Your task to perform on an android device: turn off location history Image 0: 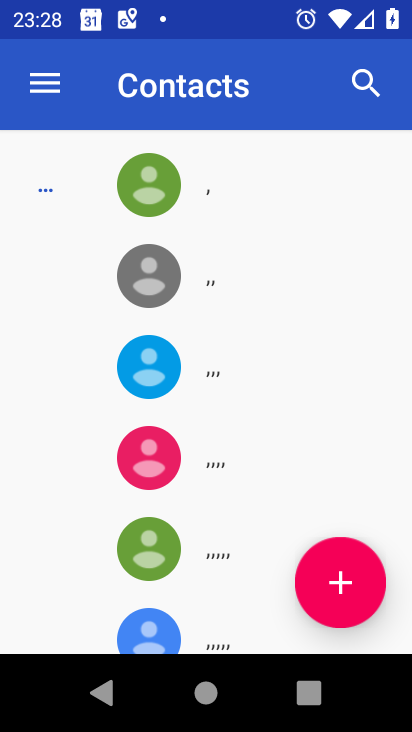
Step 0: press home button
Your task to perform on an android device: turn off location history Image 1: 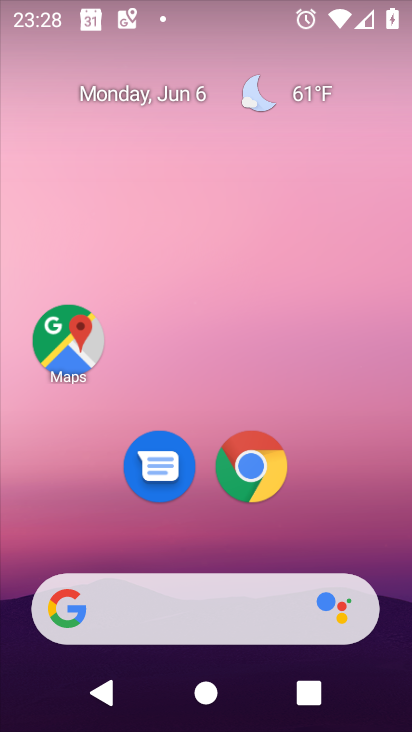
Step 1: click (51, 360)
Your task to perform on an android device: turn off location history Image 2: 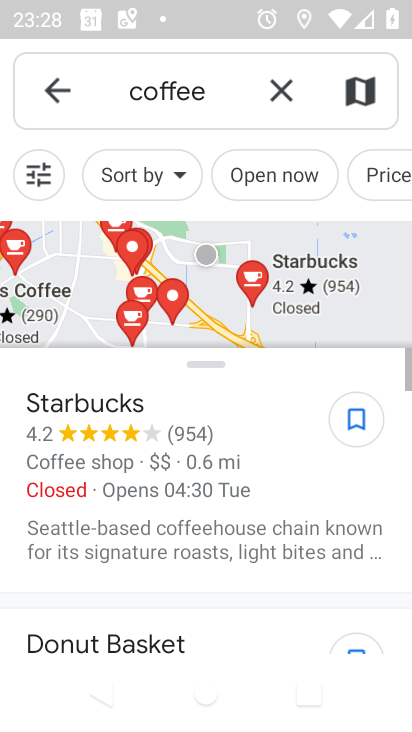
Step 2: click (54, 100)
Your task to perform on an android device: turn off location history Image 3: 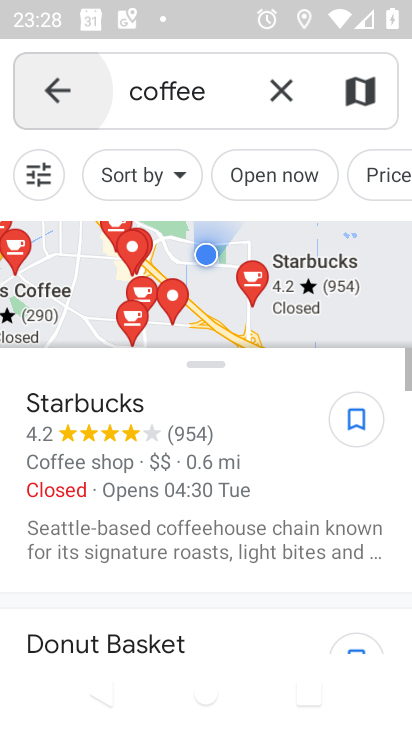
Step 3: click (54, 100)
Your task to perform on an android device: turn off location history Image 4: 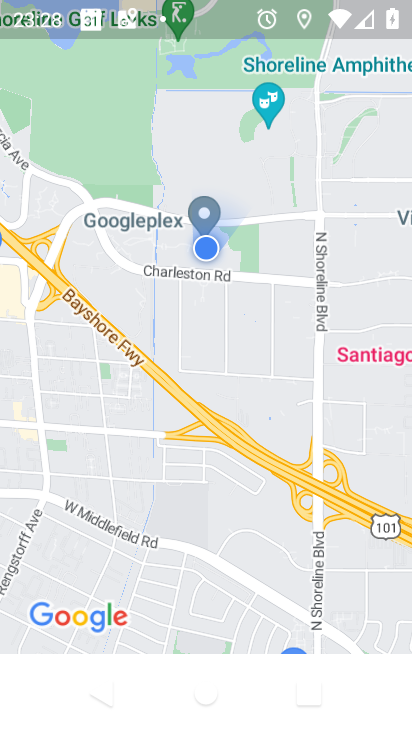
Step 4: drag from (305, 271) to (253, 652)
Your task to perform on an android device: turn off location history Image 5: 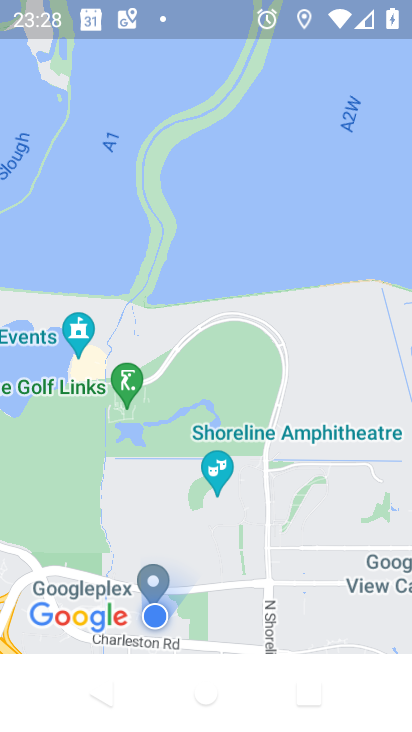
Step 5: press back button
Your task to perform on an android device: turn off location history Image 6: 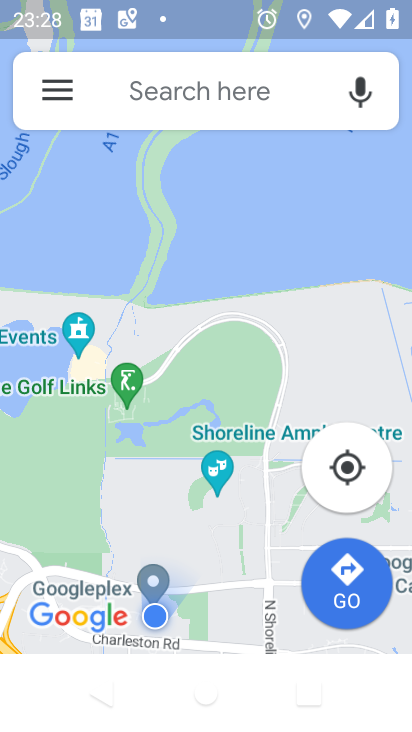
Step 6: click (53, 100)
Your task to perform on an android device: turn off location history Image 7: 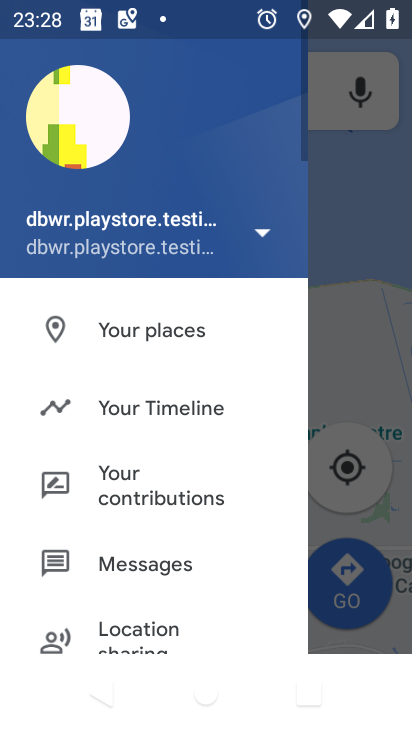
Step 7: click (119, 393)
Your task to perform on an android device: turn off location history Image 8: 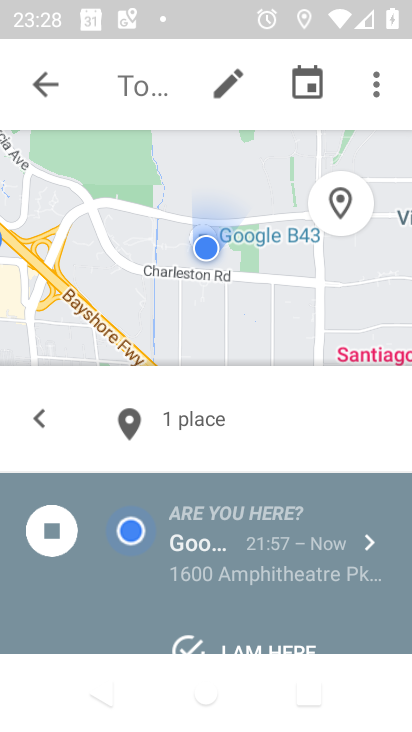
Step 8: click (379, 82)
Your task to perform on an android device: turn off location history Image 9: 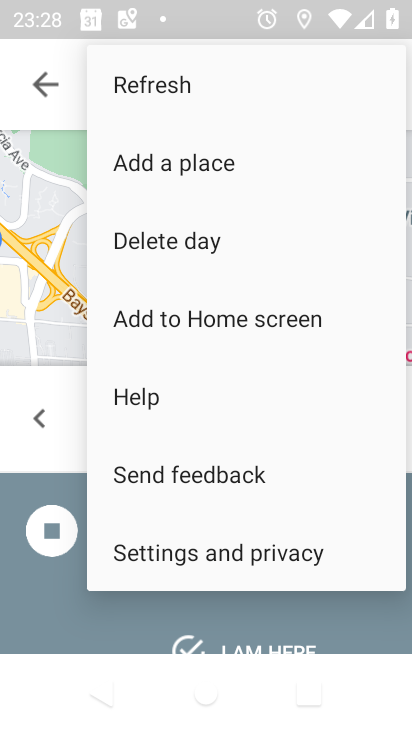
Step 9: click (198, 553)
Your task to perform on an android device: turn off location history Image 10: 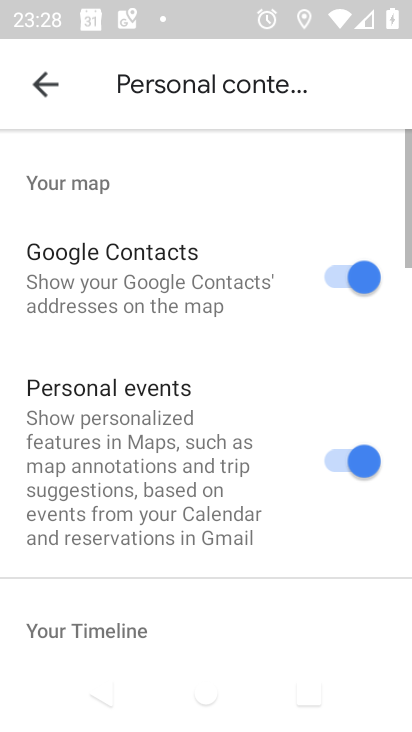
Step 10: drag from (185, 498) to (183, 159)
Your task to perform on an android device: turn off location history Image 11: 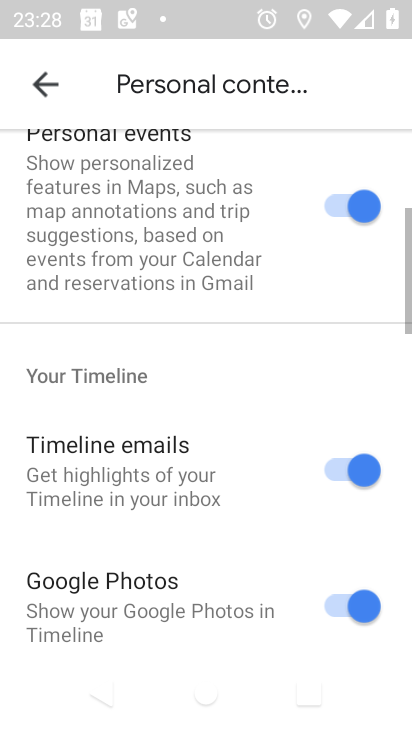
Step 11: drag from (183, 505) to (174, 406)
Your task to perform on an android device: turn off location history Image 12: 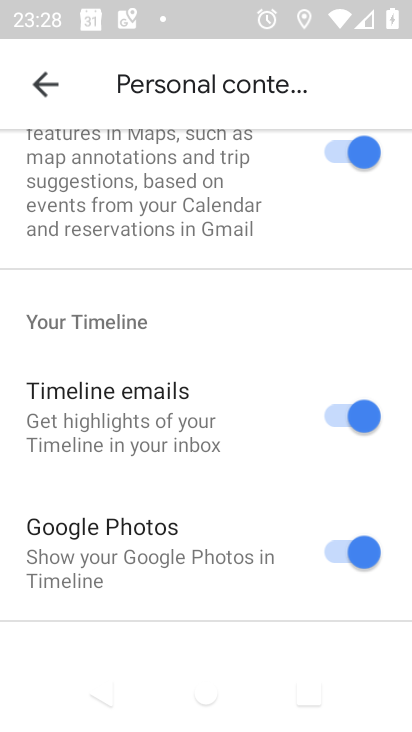
Step 12: drag from (171, 652) to (173, 280)
Your task to perform on an android device: turn off location history Image 13: 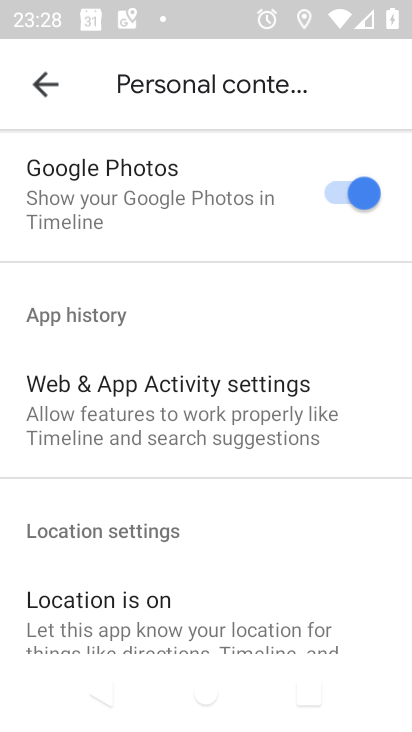
Step 13: drag from (170, 632) to (191, 154)
Your task to perform on an android device: turn off location history Image 14: 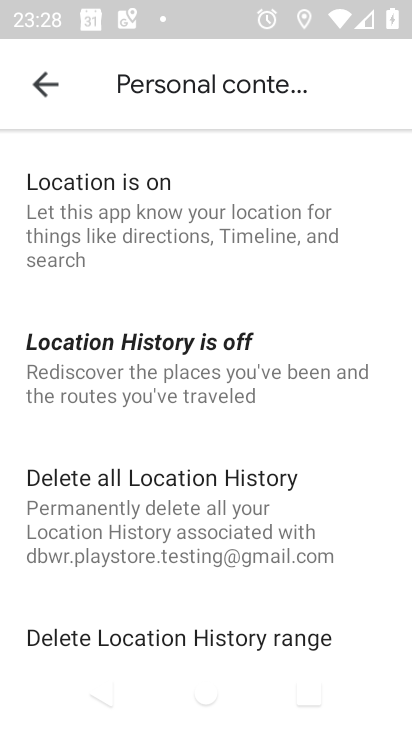
Step 14: click (173, 388)
Your task to perform on an android device: turn off location history Image 15: 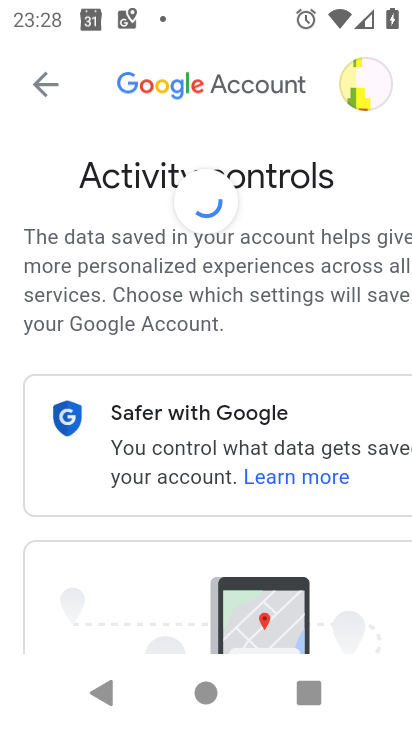
Step 15: drag from (366, 628) to (156, 185)
Your task to perform on an android device: turn off location history Image 16: 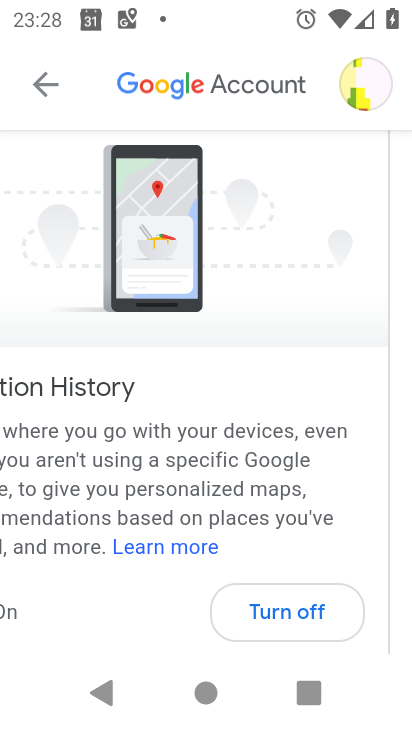
Step 16: click (309, 620)
Your task to perform on an android device: turn off location history Image 17: 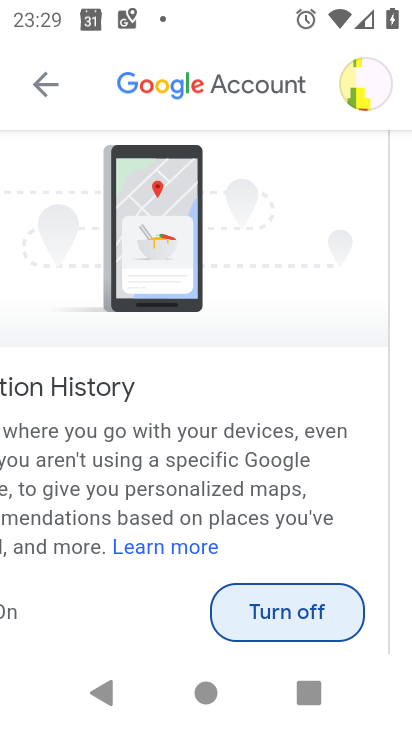
Step 17: click (309, 620)
Your task to perform on an android device: turn off location history Image 18: 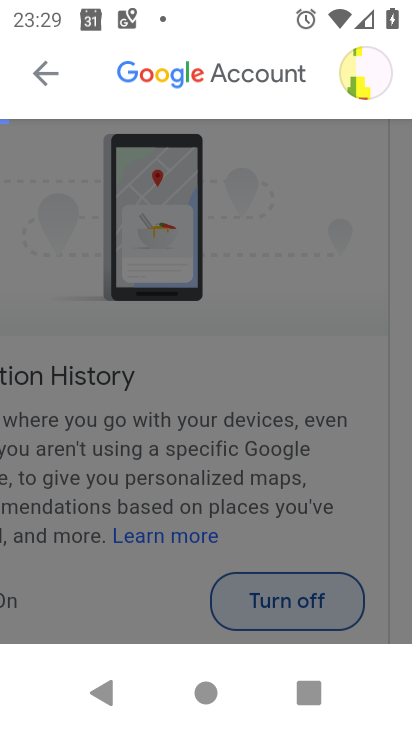
Step 18: click (309, 620)
Your task to perform on an android device: turn off location history Image 19: 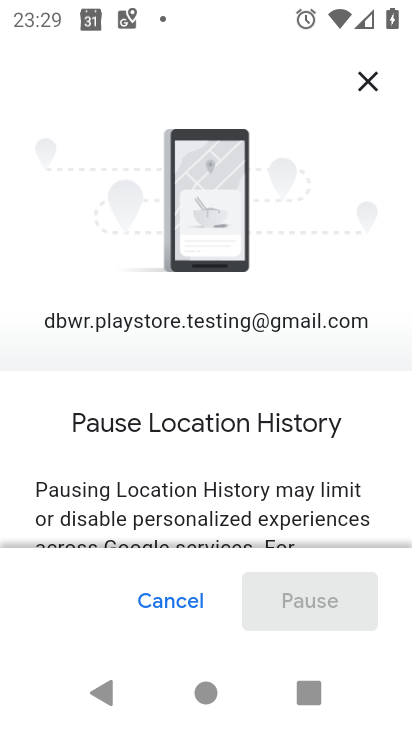
Step 19: click (310, 615)
Your task to perform on an android device: turn off location history Image 20: 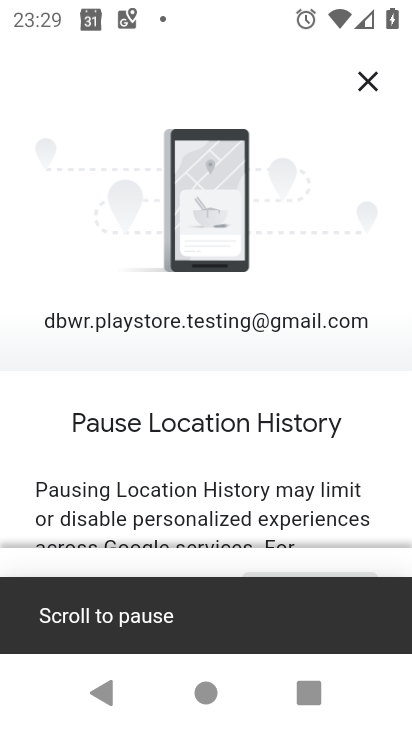
Step 20: drag from (296, 495) to (250, 15)
Your task to perform on an android device: turn off location history Image 21: 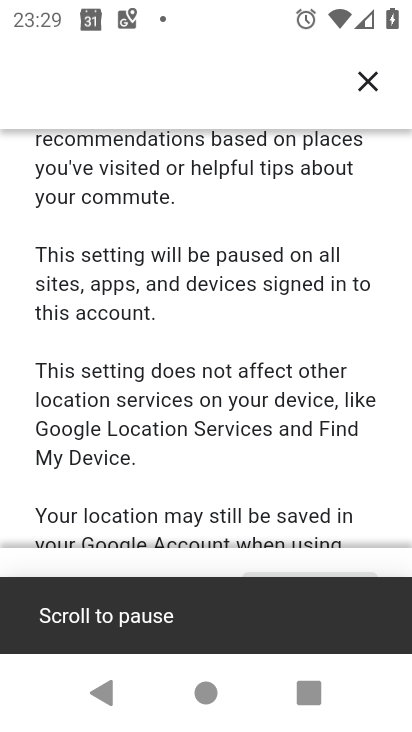
Step 21: drag from (327, 425) to (303, 62)
Your task to perform on an android device: turn off location history Image 22: 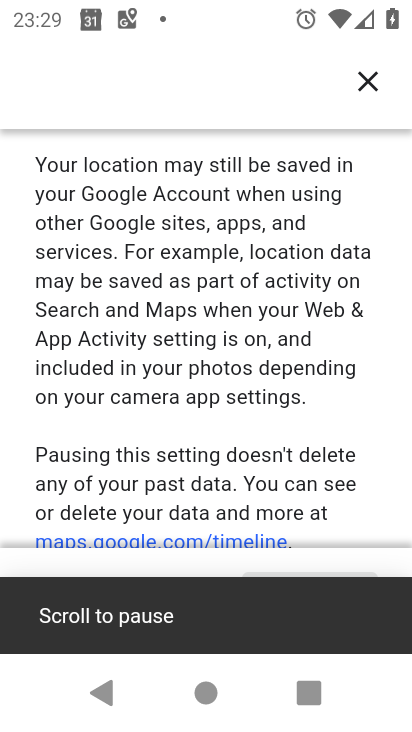
Step 22: drag from (333, 472) to (311, 85)
Your task to perform on an android device: turn off location history Image 23: 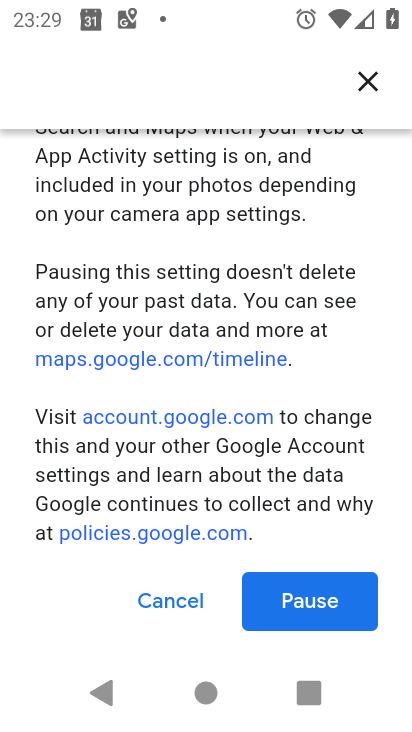
Step 23: click (344, 588)
Your task to perform on an android device: turn off location history Image 24: 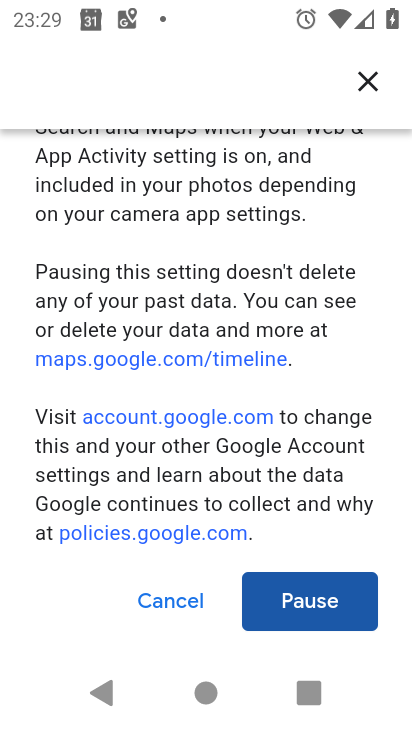
Step 24: click (316, 598)
Your task to perform on an android device: turn off location history Image 25: 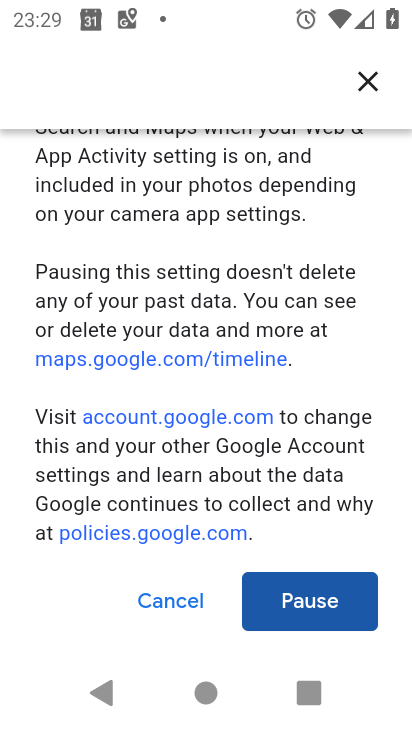
Step 25: click (316, 598)
Your task to perform on an android device: turn off location history Image 26: 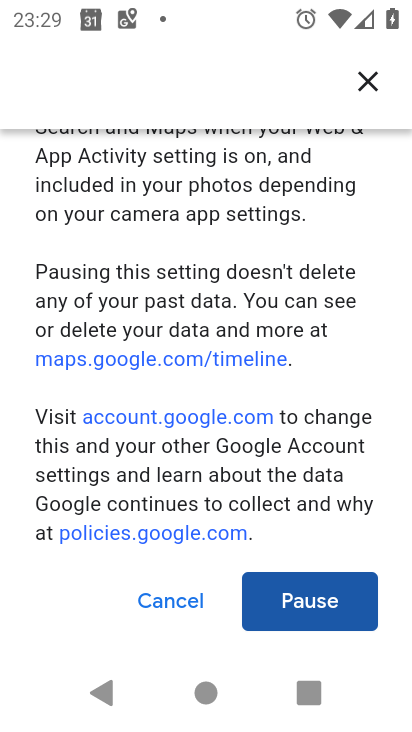
Step 26: click (316, 598)
Your task to perform on an android device: turn off location history Image 27: 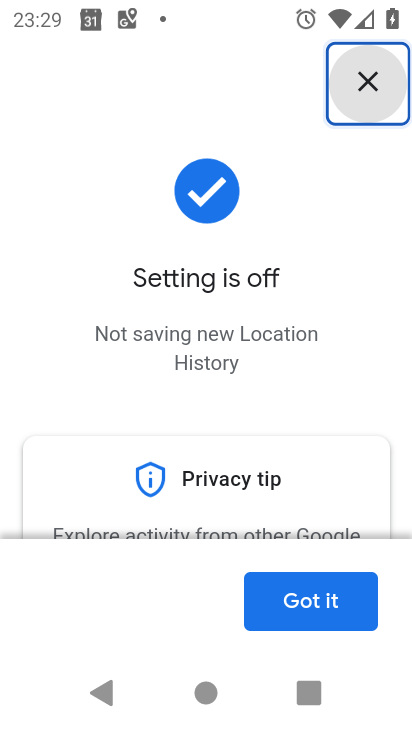
Step 27: click (335, 590)
Your task to perform on an android device: turn off location history Image 28: 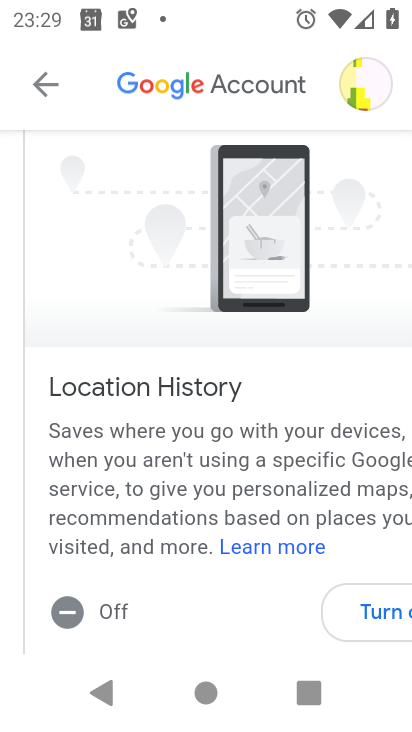
Step 28: task complete